Your task to perform on an android device: Go to settings Image 0: 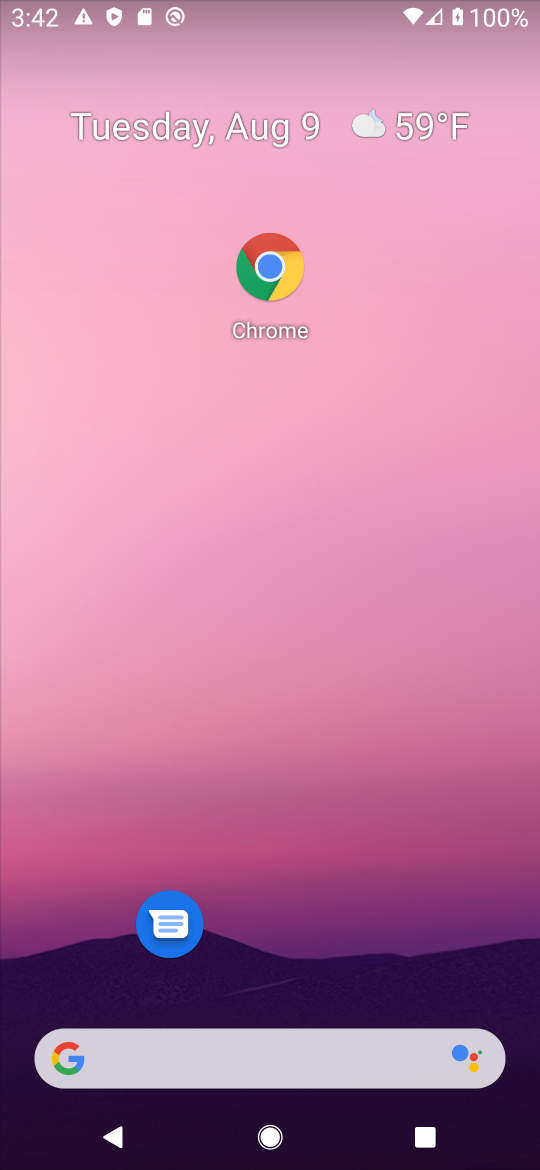
Step 0: drag from (250, 774) to (218, 406)
Your task to perform on an android device: Go to settings Image 1: 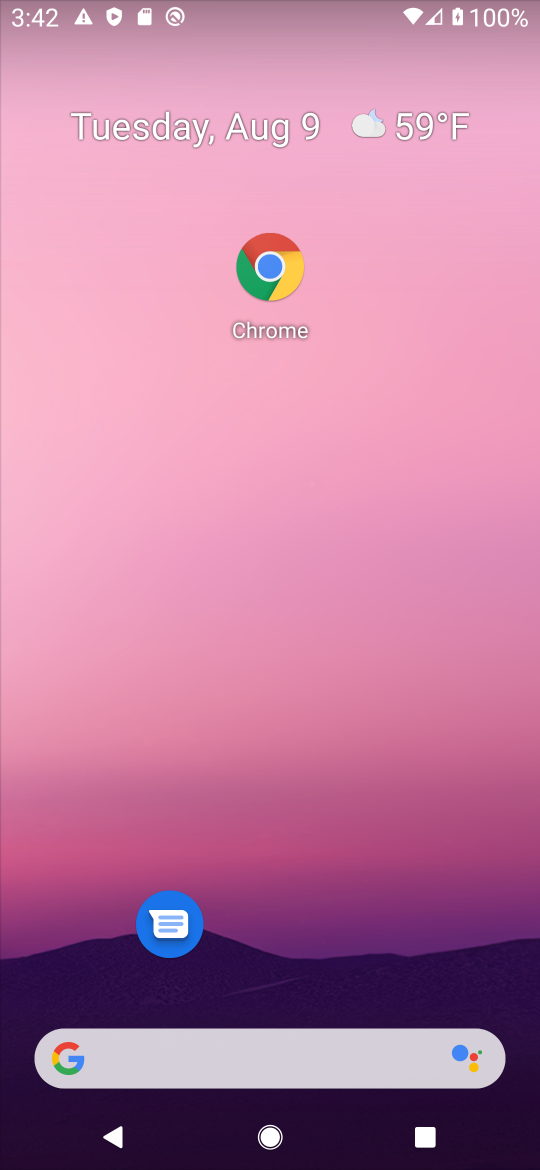
Step 1: drag from (236, 869) to (235, 315)
Your task to perform on an android device: Go to settings Image 2: 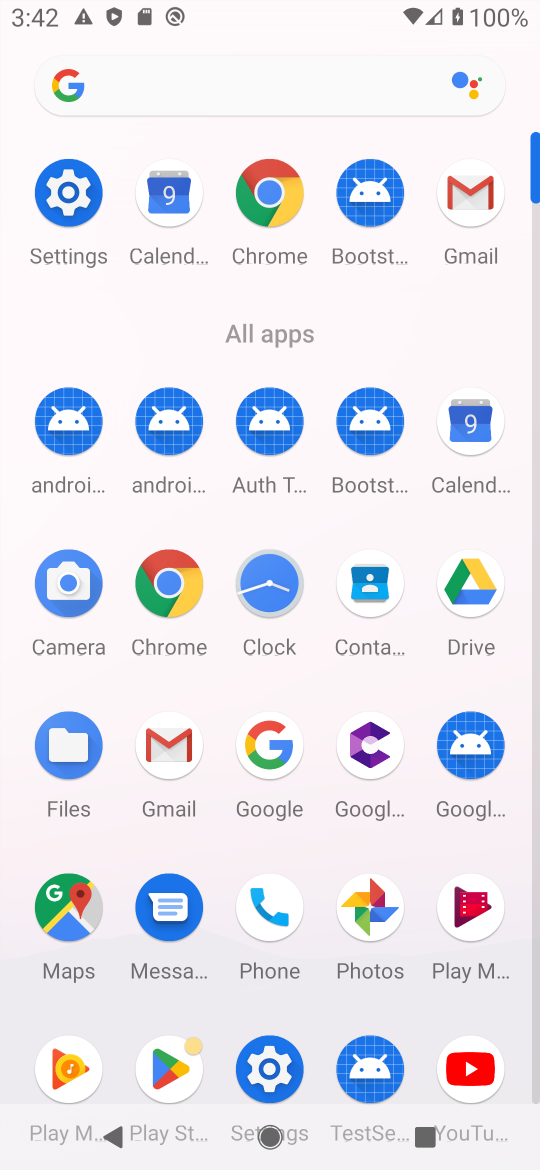
Step 2: click (57, 211)
Your task to perform on an android device: Go to settings Image 3: 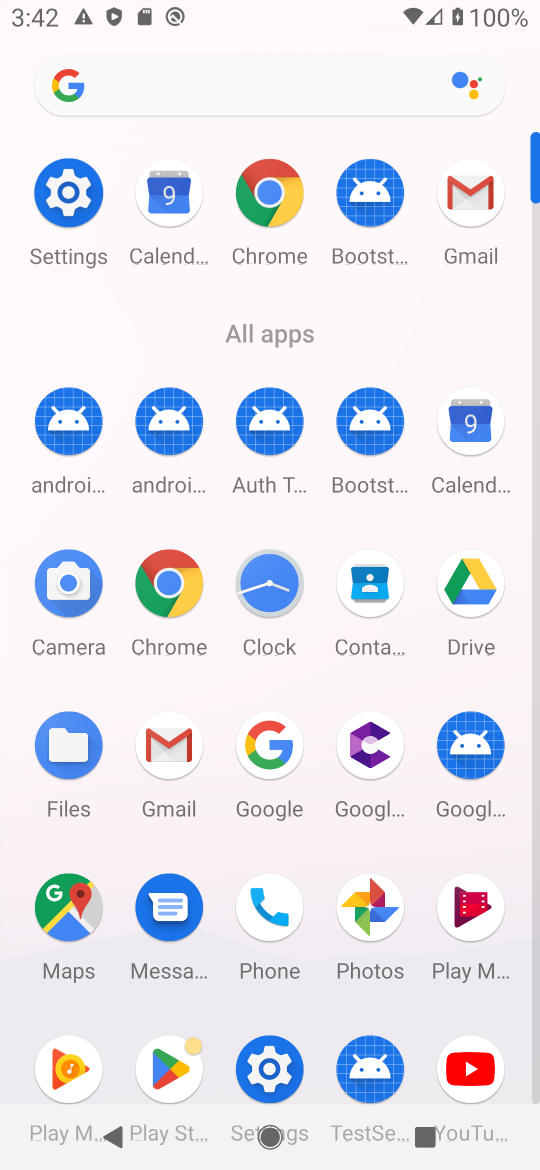
Step 3: click (57, 211)
Your task to perform on an android device: Go to settings Image 4: 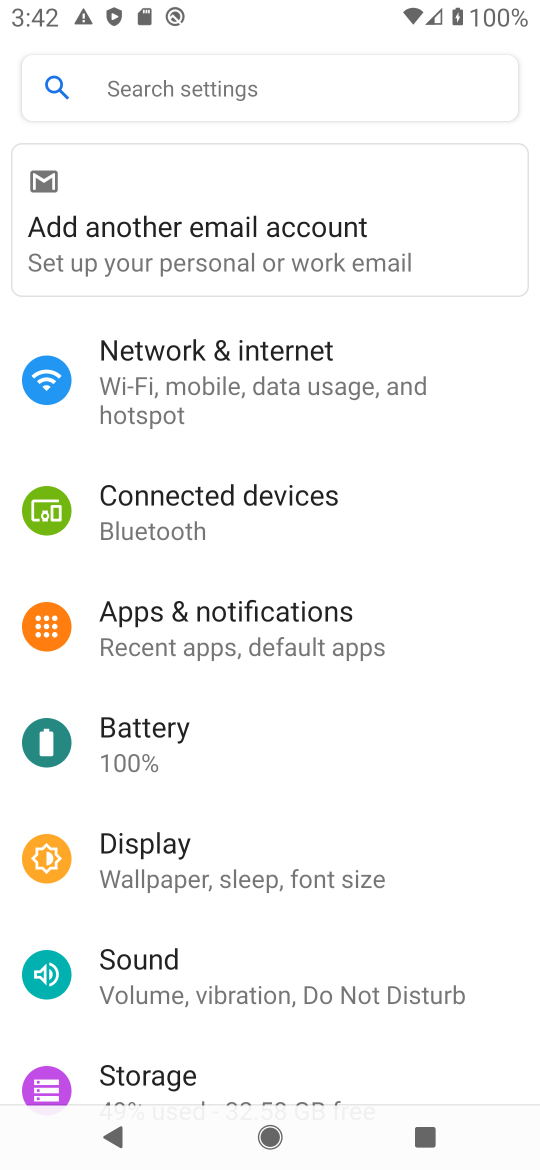
Step 4: task complete